Your task to perform on an android device: toggle notification dots Image 0: 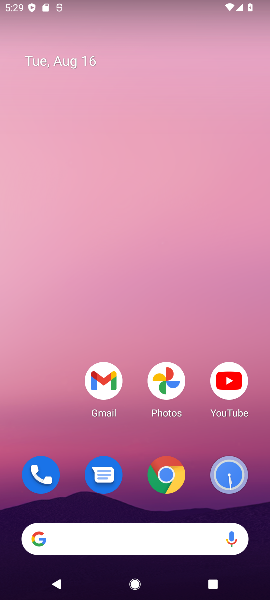
Step 0: drag from (197, 460) to (131, 59)
Your task to perform on an android device: toggle notification dots Image 1: 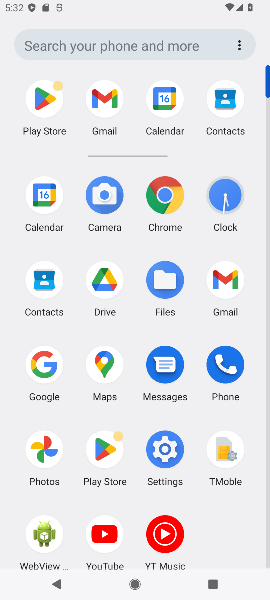
Step 1: click (167, 450)
Your task to perform on an android device: toggle notification dots Image 2: 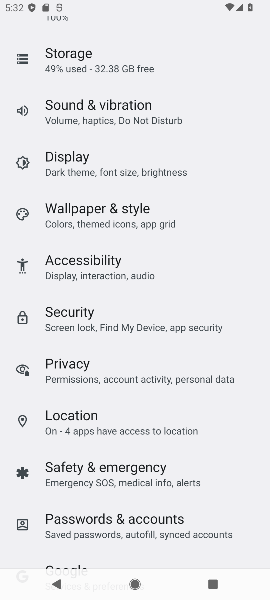
Step 2: drag from (126, 111) to (89, 577)
Your task to perform on an android device: toggle notification dots Image 3: 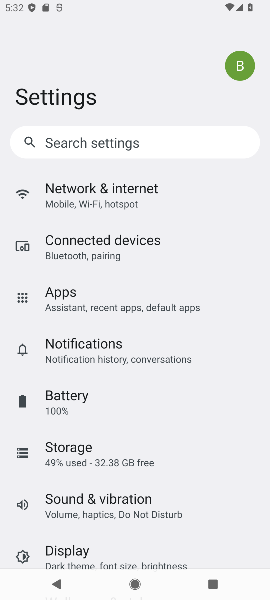
Step 3: click (142, 357)
Your task to perform on an android device: toggle notification dots Image 4: 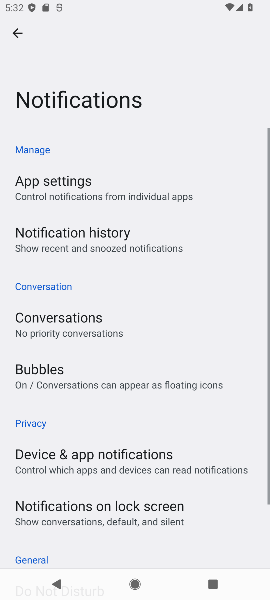
Step 4: drag from (130, 539) to (147, 0)
Your task to perform on an android device: toggle notification dots Image 5: 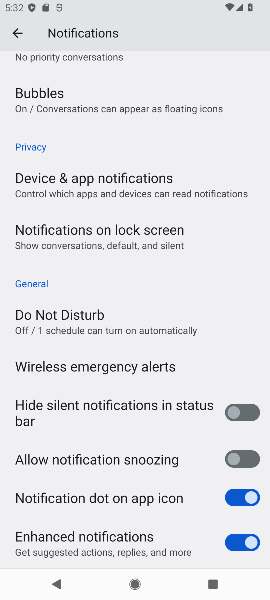
Step 5: click (219, 495)
Your task to perform on an android device: toggle notification dots Image 6: 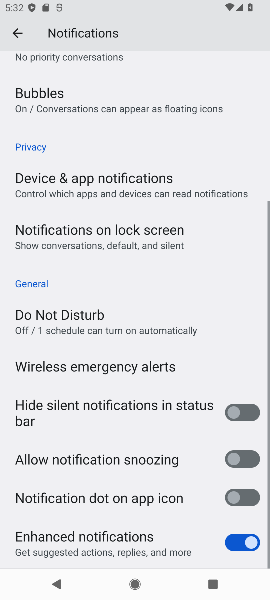
Step 6: task complete